Your task to perform on an android device: Show me productivity apps on the Play Store Image 0: 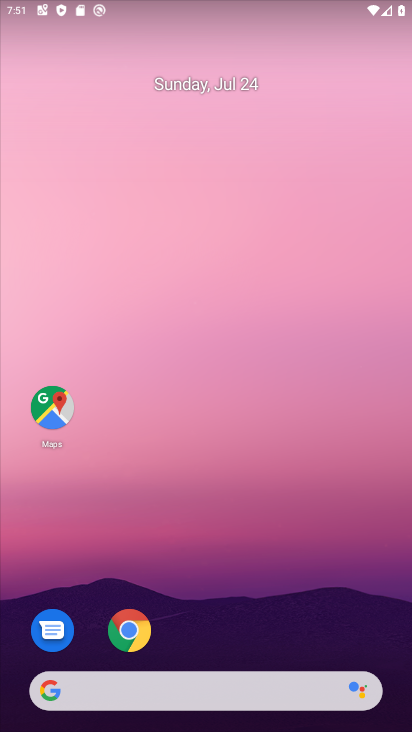
Step 0: drag from (181, 619) to (168, 198)
Your task to perform on an android device: Show me productivity apps on the Play Store Image 1: 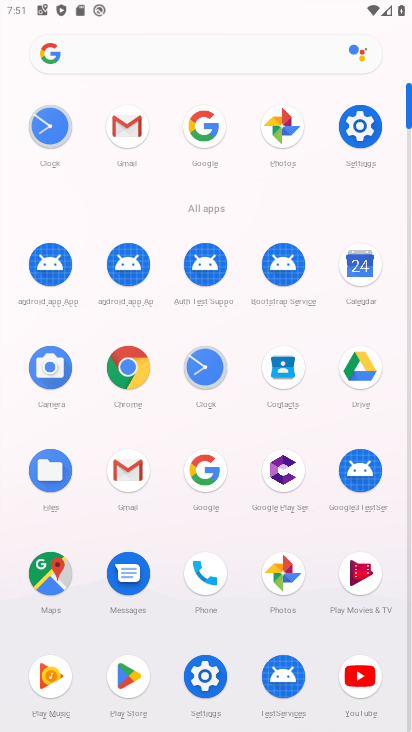
Step 1: click (123, 689)
Your task to perform on an android device: Show me productivity apps on the Play Store Image 2: 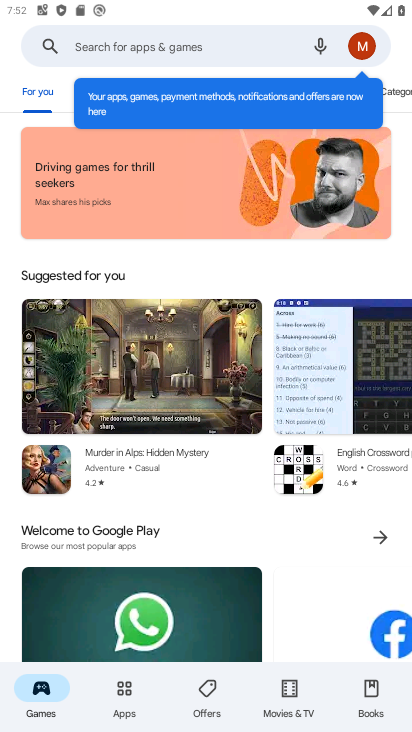
Step 2: click (129, 691)
Your task to perform on an android device: Show me productivity apps on the Play Store Image 3: 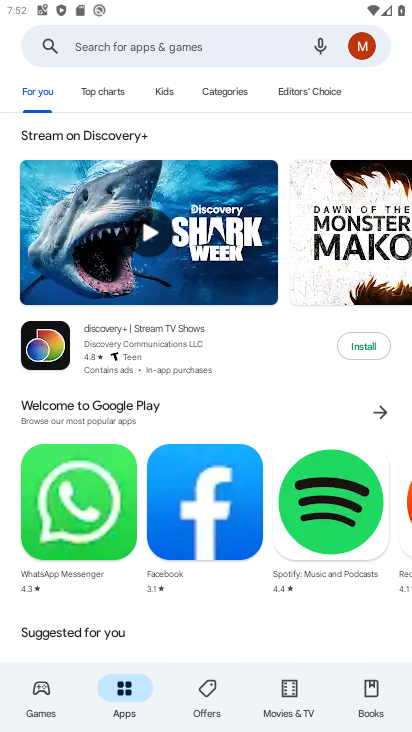
Step 3: click (210, 96)
Your task to perform on an android device: Show me productivity apps on the Play Store Image 4: 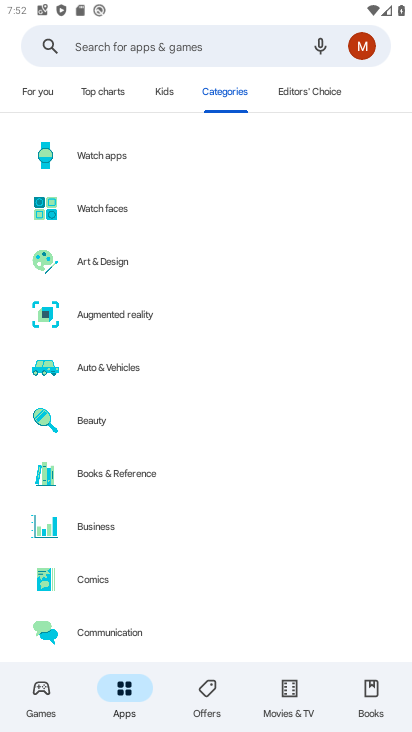
Step 4: drag from (197, 605) to (206, 8)
Your task to perform on an android device: Show me productivity apps on the Play Store Image 5: 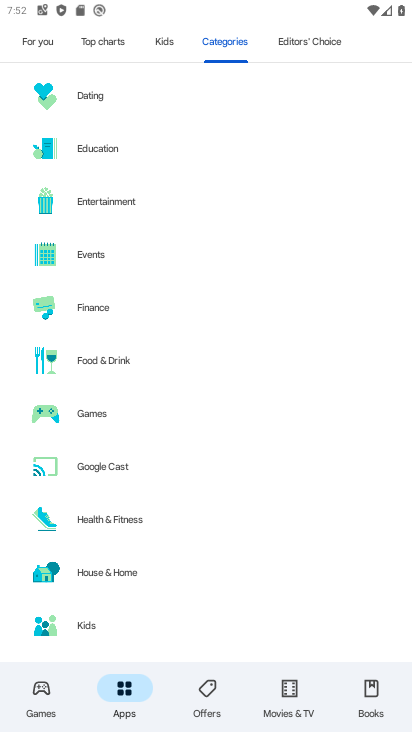
Step 5: drag from (200, 562) to (173, 122)
Your task to perform on an android device: Show me productivity apps on the Play Store Image 6: 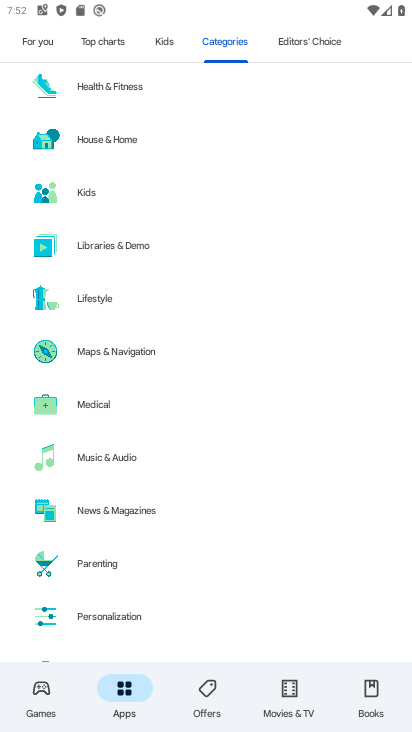
Step 6: drag from (185, 564) to (229, 236)
Your task to perform on an android device: Show me productivity apps on the Play Store Image 7: 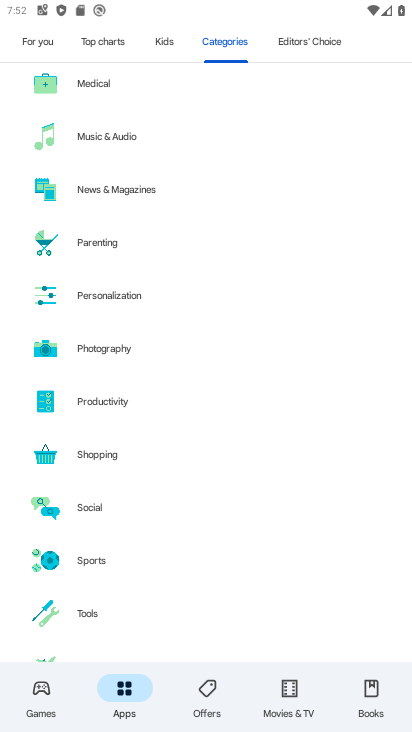
Step 7: click (135, 394)
Your task to perform on an android device: Show me productivity apps on the Play Store Image 8: 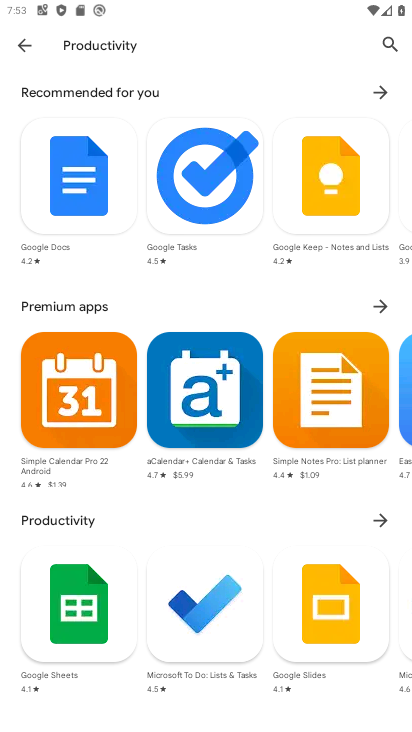
Step 8: task complete